Your task to perform on an android device: delete location history Image 0: 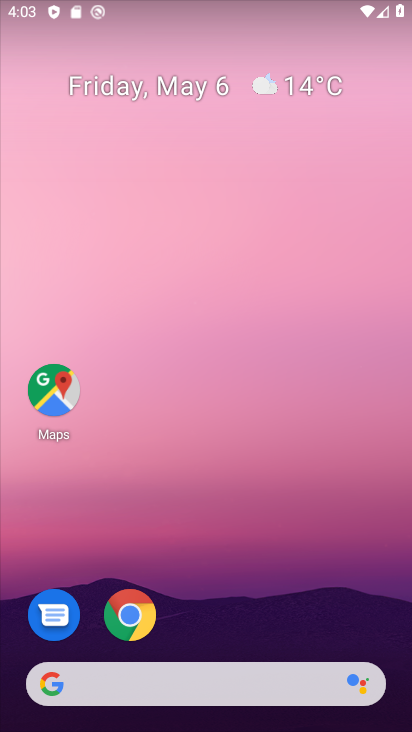
Step 0: drag from (271, 609) to (164, 100)
Your task to perform on an android device: delete location history Image 1: 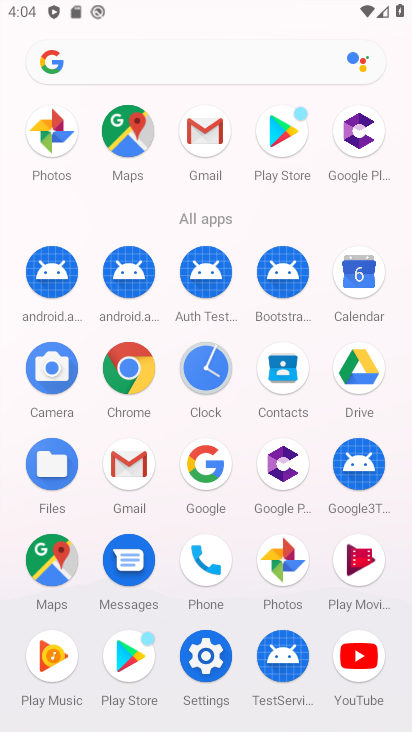
Step 1: click (208, 646)
Your task to perform on an android device: delete location history Image 2: 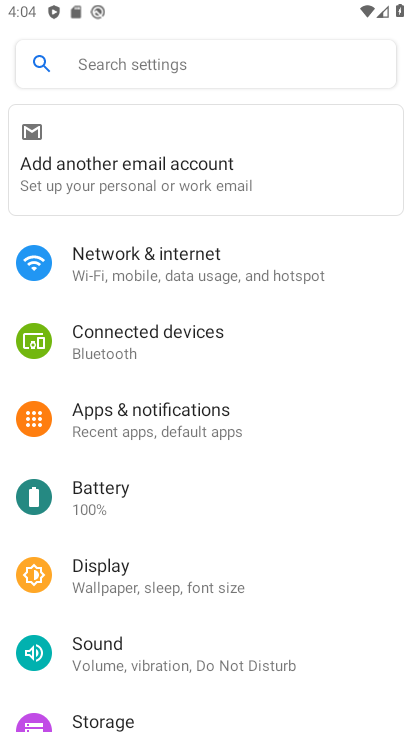
Step 2: drag from (208, 646) to (186, 350)
Your task to perform on an android device: delete location history Image 3: 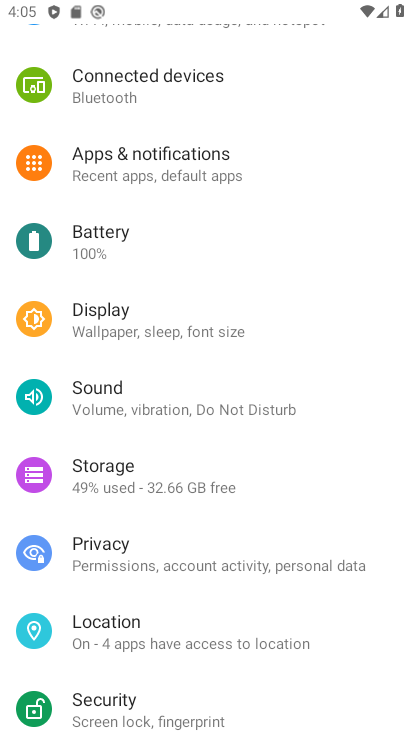
Step 3: click (156, 622)
Your task to perform on an android device: delete location history Image 4: 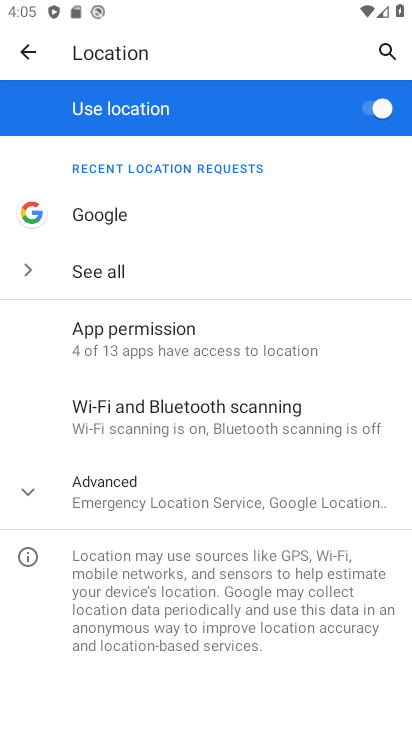
Step 4: click (235, 469)
Your task to perform on an android device: delete location history Image 5: 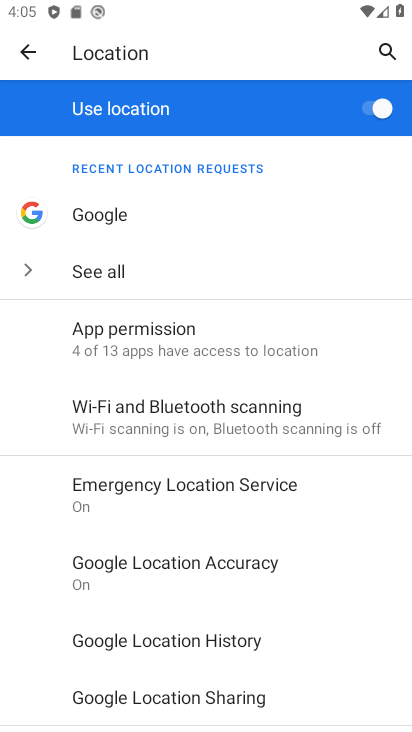
Step 5: drag from (233, 661) to (239, 591)
Your task to perform on an android device: delete location history Image 6: 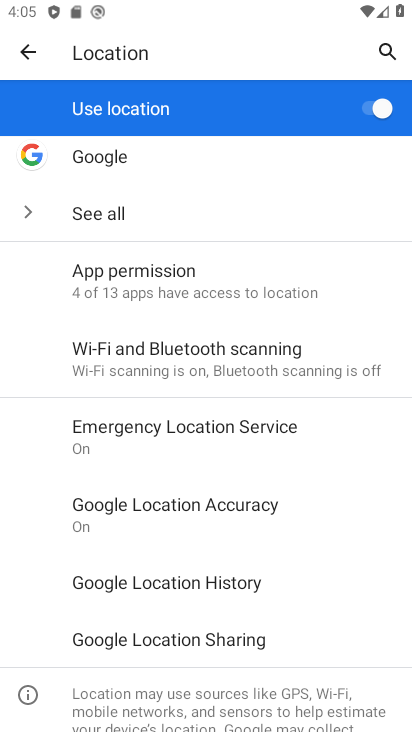
Step 6: click (227, 591)
Your task to perform on an android device: delete location history Image 7: 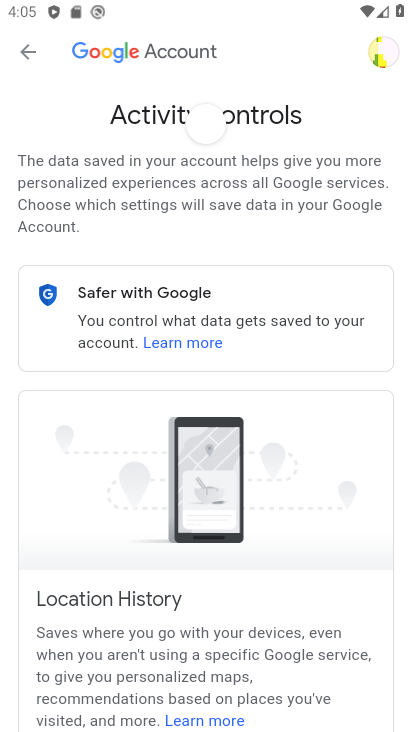
Step 7: drag from (238, 588) to (229, 201)
Your task to perform on an android device: delete location history Image 8: 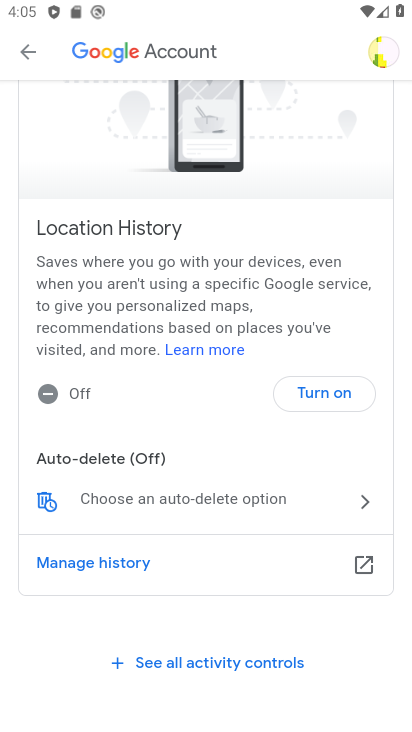
Step 8: click (114, 472)
Your task to perform on an android device: delete location history Image 9: 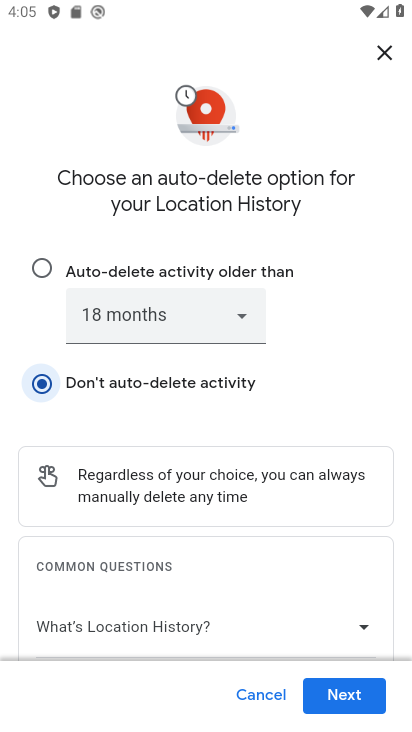
Step 9: click (364, 707)
Your task to perform on an android device: delete location history Image 10: 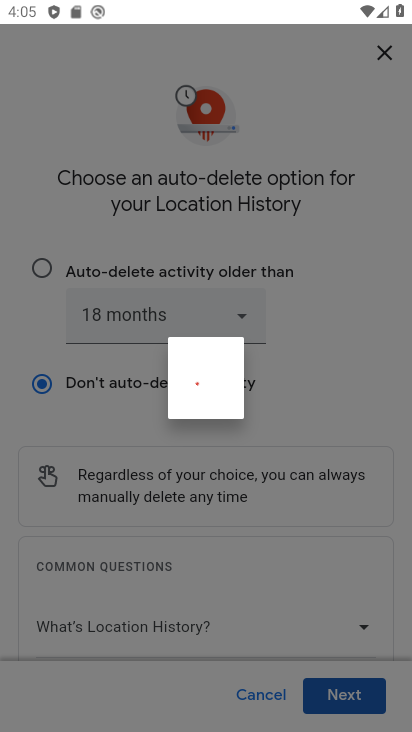
Step 10: click (357, 700)
Your task to perform on an android device: delete location history Image 11: 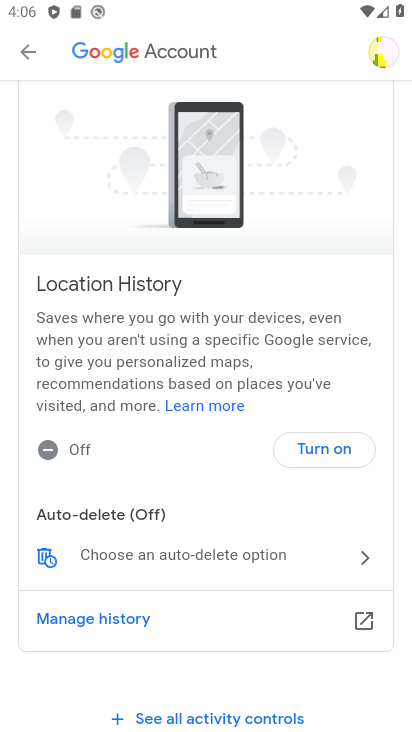
Step 11: task complete